Your task to perform on an android device: Open the web browser Image 0: 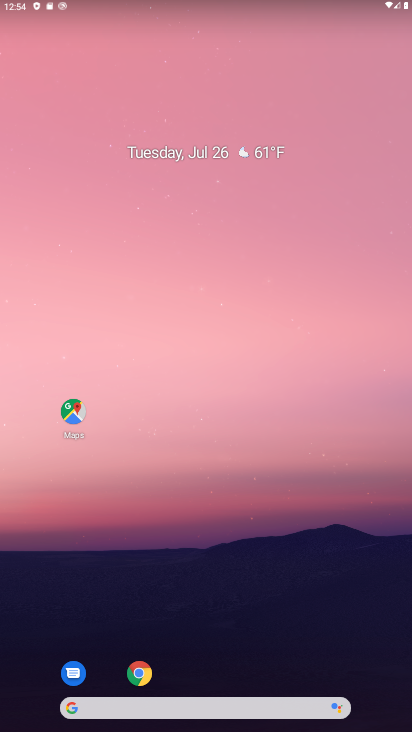
Step 0: click (135, 672)
Your task to perform on an android device: Open the web browser Image 1: 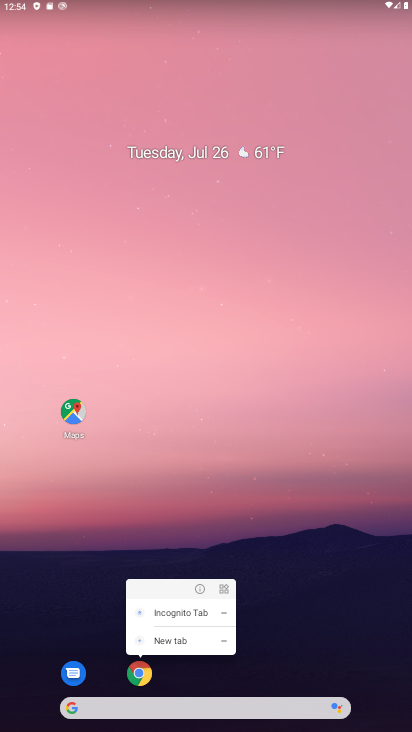
Step 1: click (199, 584)
Your task to perform on an android device: Open the web browser Image 2: 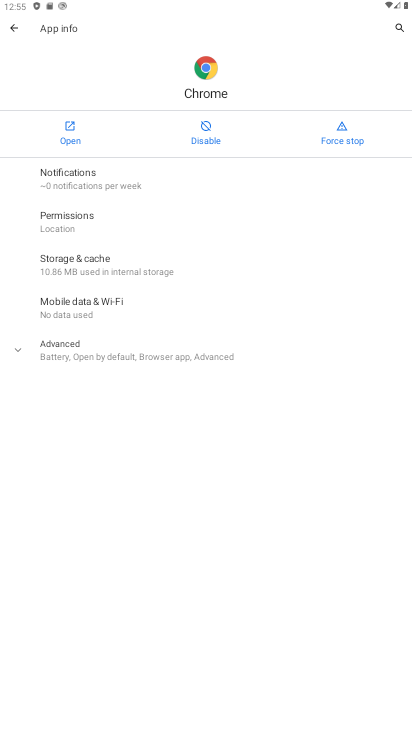
Step 2: click (66, 144)
Your task to perform on an android device: Open the web browser Image 3: 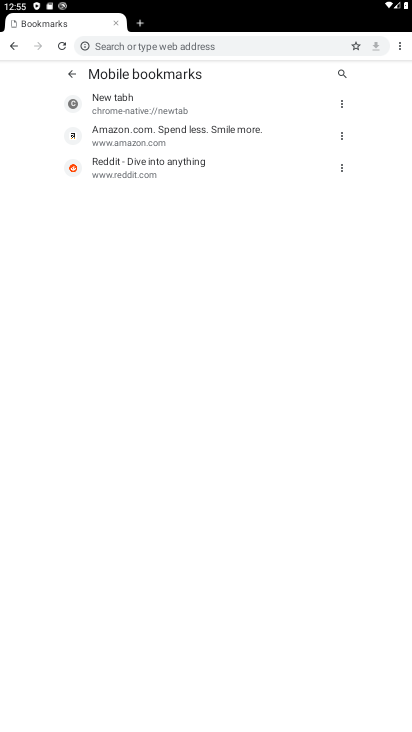
Step 3: task complete